Your task to perform on an android device: Open display settings Image 0: 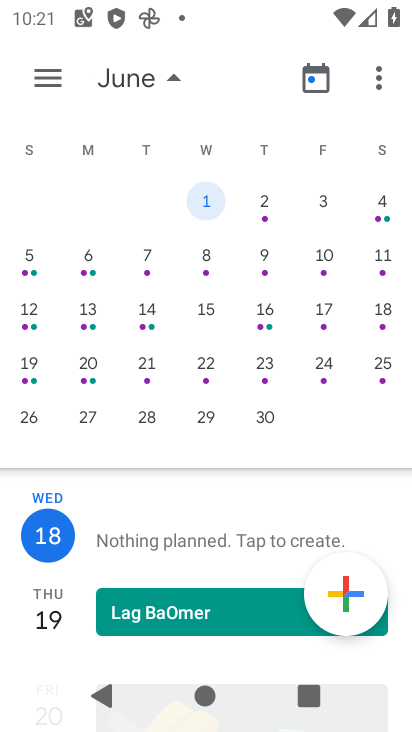
Step 0: press home button
Your task to perform on an android device: Open display settings Image 1: 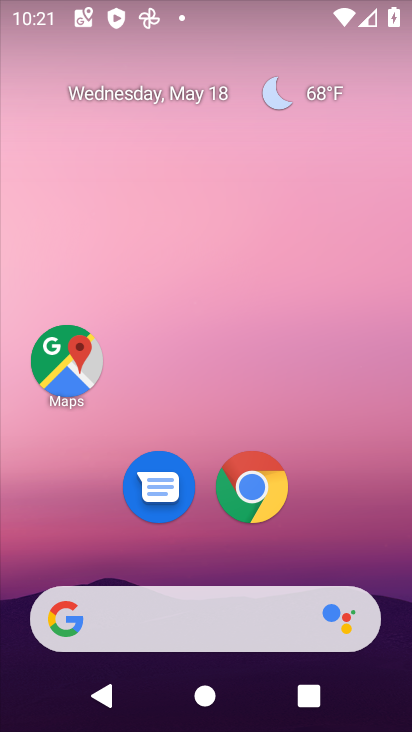
Step 1: drag from (329, 533) to (323, 208)
Your task to perform on an android device: Open display settings Image 2: 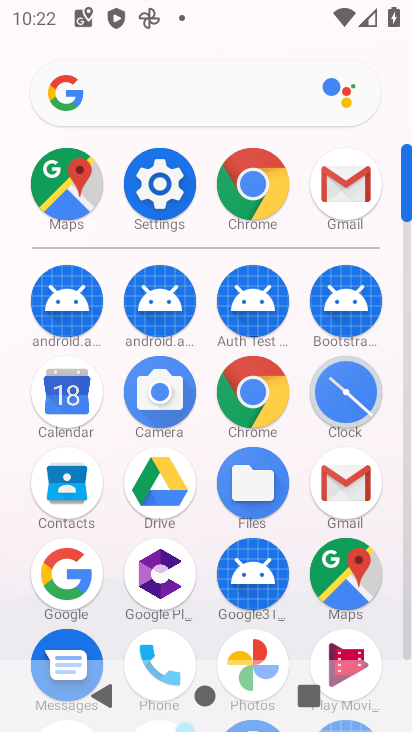
Step 2: click (141, 211)
Your task to perform on an android device: Open display settings Image 3: 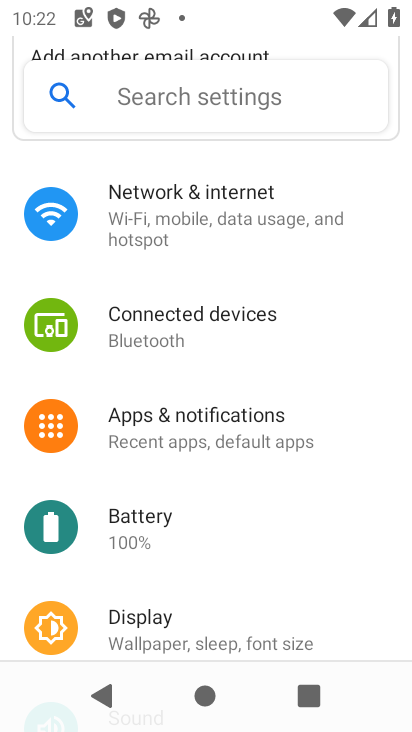
Step 3: click (181, 617)
Your task to perform on an android device: Open display settings Image 4: 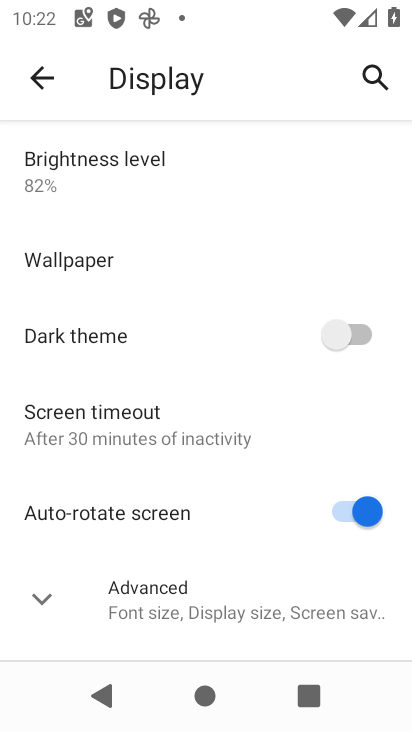
Step 4: drag from (181, 617) to (212, 381)
Your task to perform on an android device: Open display settings Image 5: 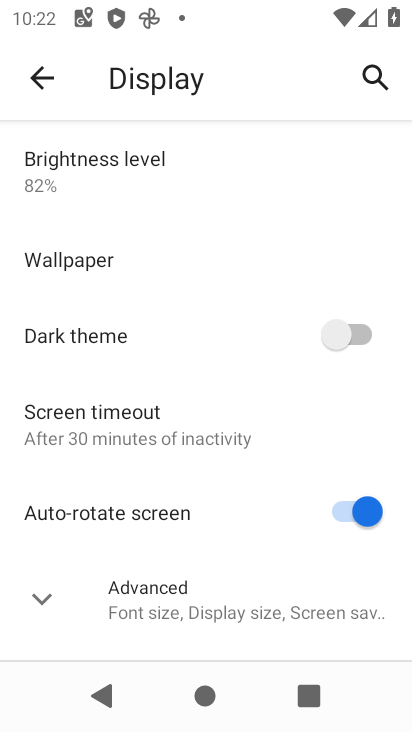
Step 5: click (39, 586)
Your task to perform on an android device: Open display settings Image 6: 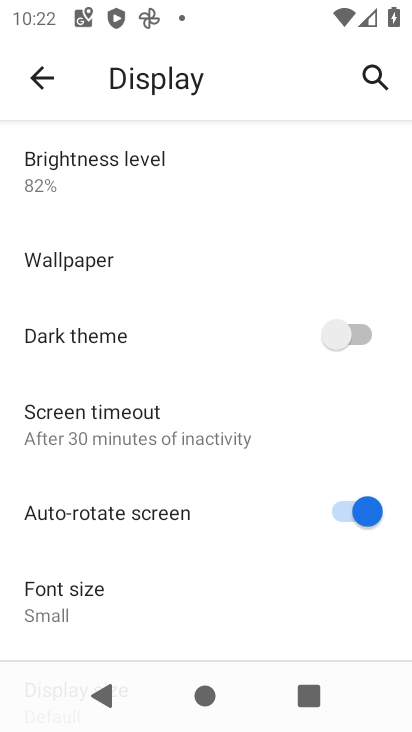
Step 6: task complete